Your task to perform on an android device: Go to sound settings Image 0: 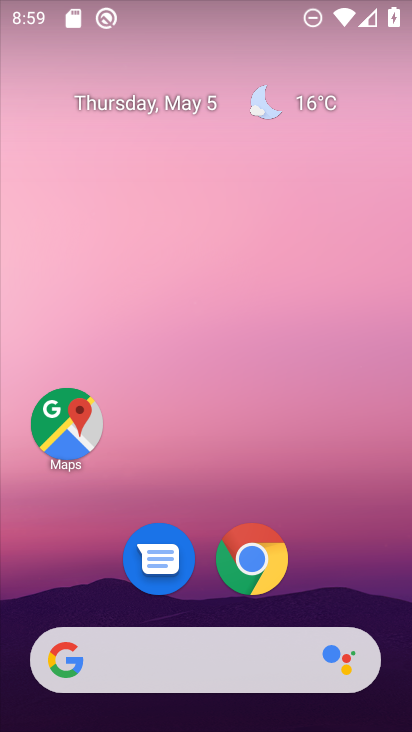
Step 0: drag from (374, 598) to (361, 1)
Your task to perform on an android device: Go to sound settings Image 1: 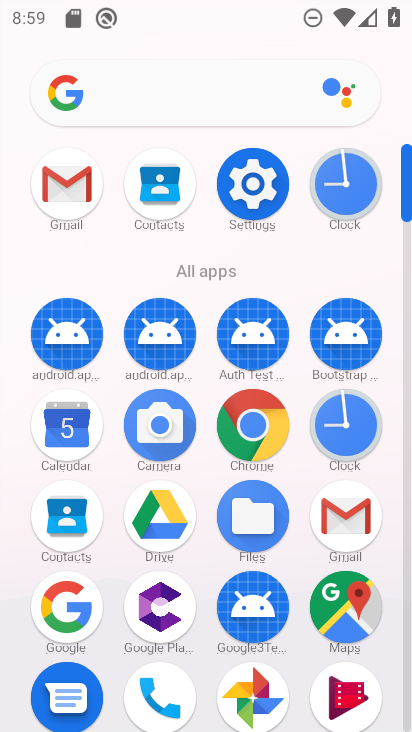
Step 1: click (253, 202)
Your task to perform on an android device: Go to sound settings Image 2: 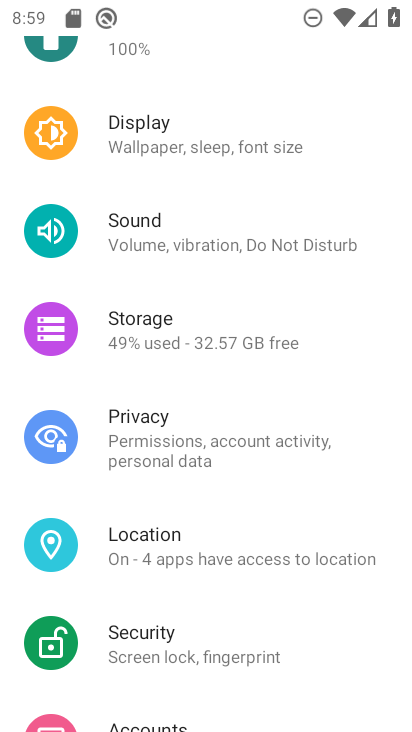
Step 2: click (137, 242)
Your task to perform on an android device: Go to sound settings Image 3: 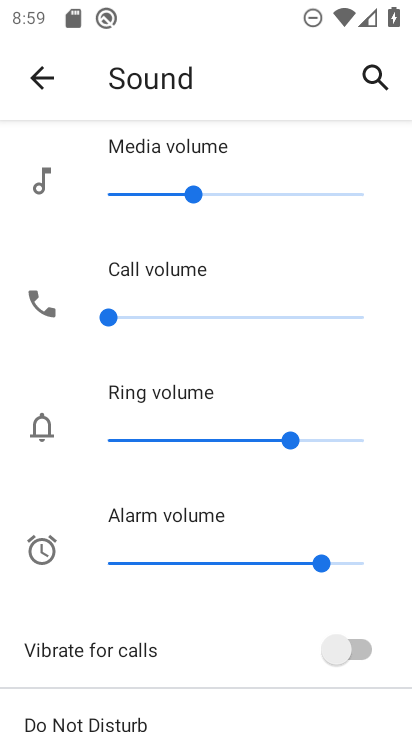
Step 3: task complete